Your task to perform on an android device: Go to eBay Image 0: 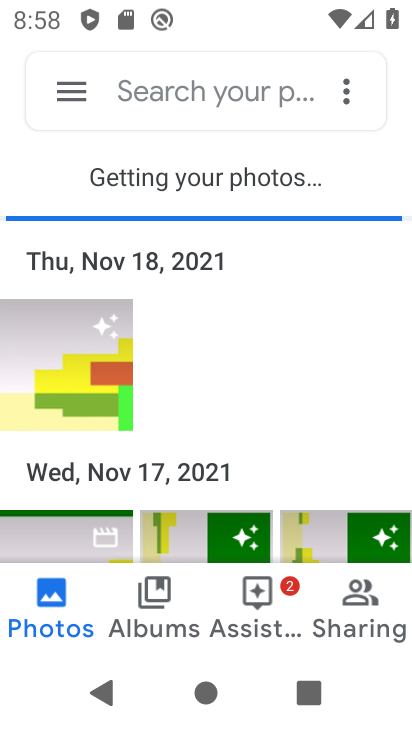
Step 0: press home button
Your task to perform on an android device: Go to eBay Image 1: 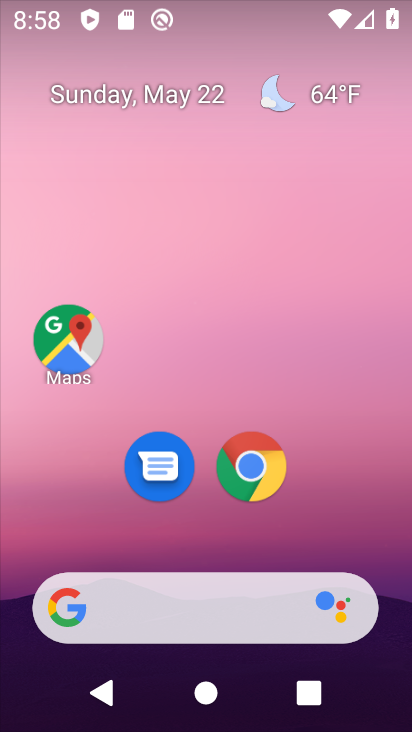
Step 1: click (277, 463)
Your task to perform on an android device: Go to eBay Image 2: 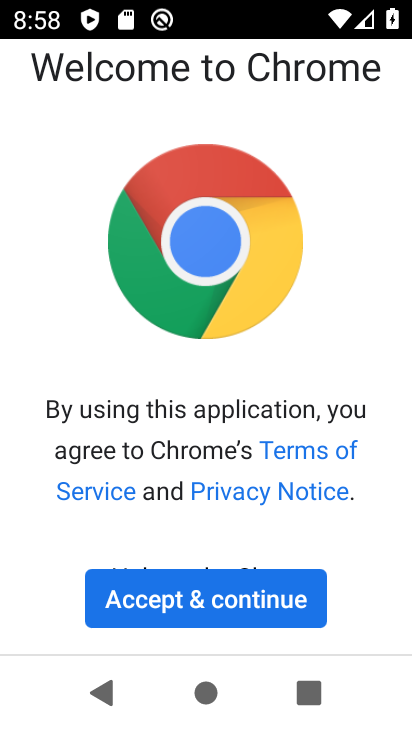
Step 2: click (281, 595)
Your task to perform on an android device: Go to eBay Image 3: 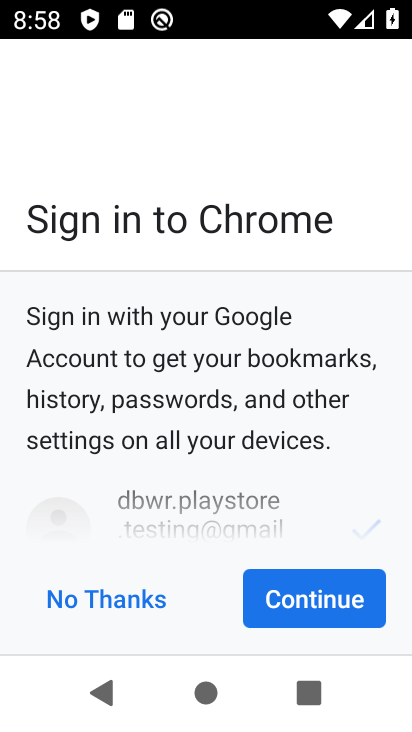
Step 3: click (342, 579)
Your task to perform on an android device: Go to eBay Image 4: 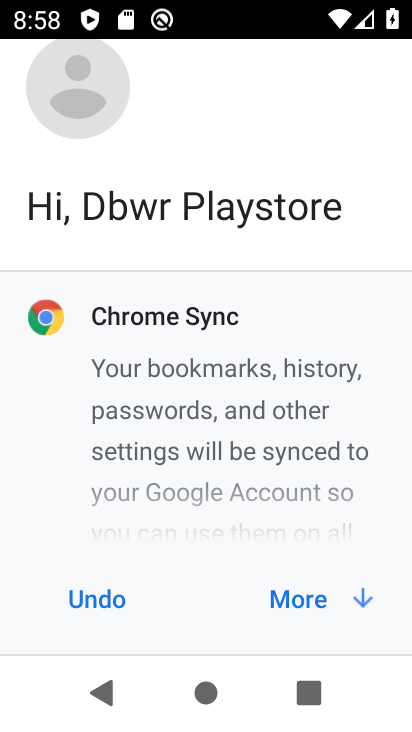
Step 4: click (330, 598)
Your task to perform on an android device: Go to eBay Image 5: 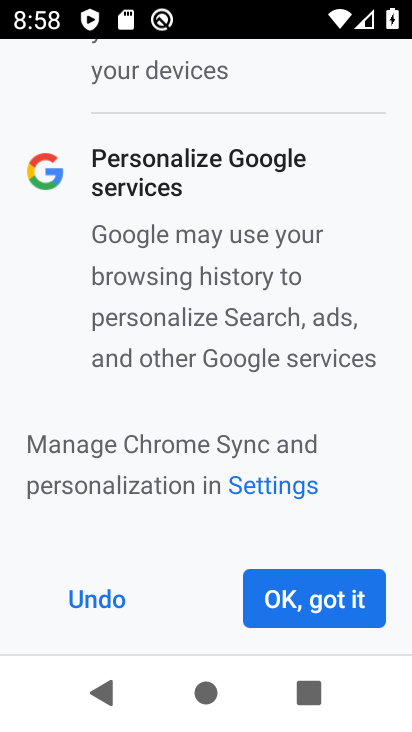
Step 5: click (330, 598)
Your task to perform on an android device: Go to eBay Image 6: 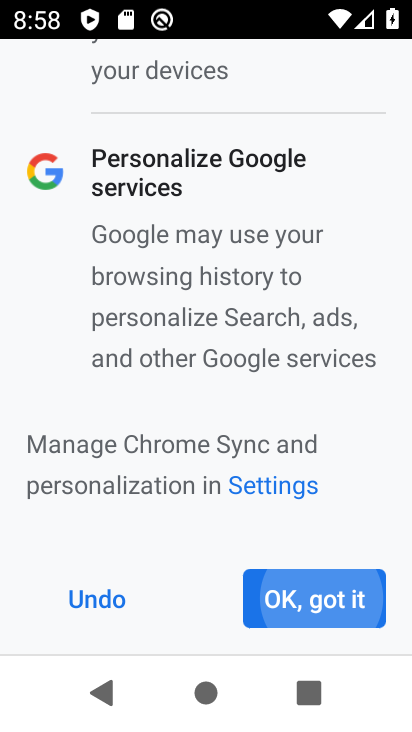
Step 6: click (330, 598)
Your task to perform on an android device: Go to eBay Image 7: 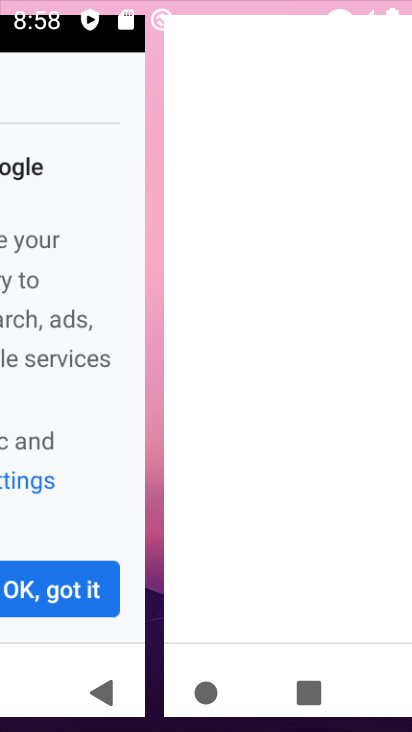
Step 7: click (330, 598)
Your task to perform on an android device: Go to eBay Image 8: 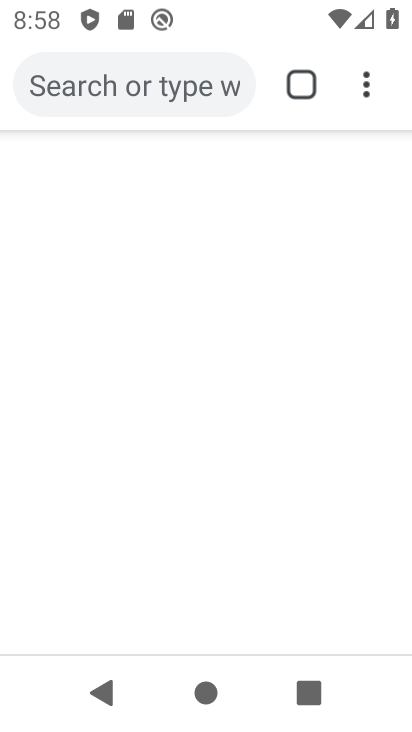
Step 8: click (330, 598)
Your task to perform on an android device: Go to eBay Image 9: 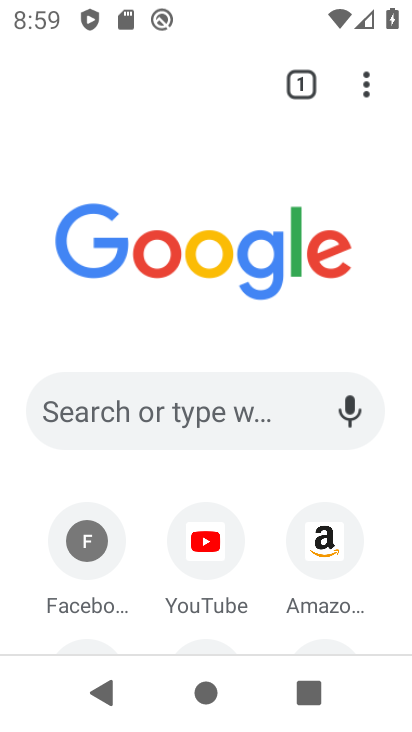
Step 9: click (194, 415)
Your task to perform on an android device: Go to eBay Image 10: 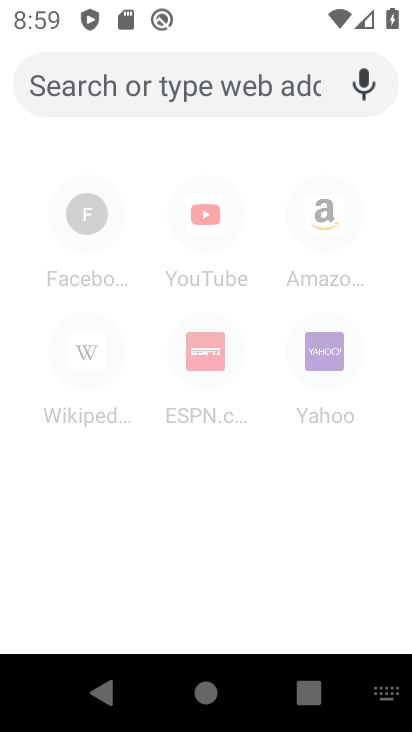
Step 10: type " eBay"
Your task to perform on an android device: Go to eBay Image 11: 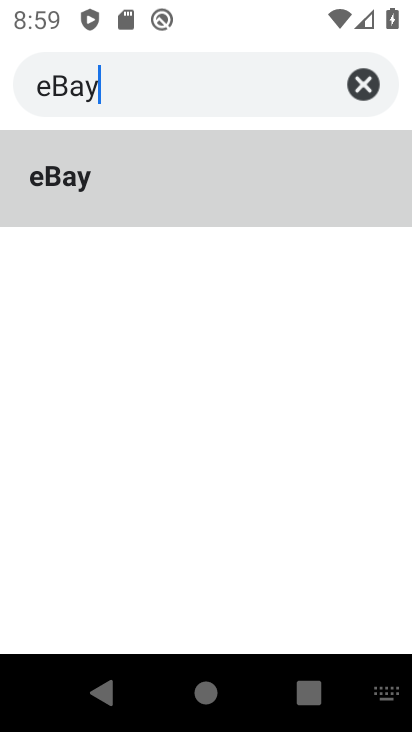
Step 11: click (56, 179)
Your task to perform on an android device: Go to eBay Image 12: 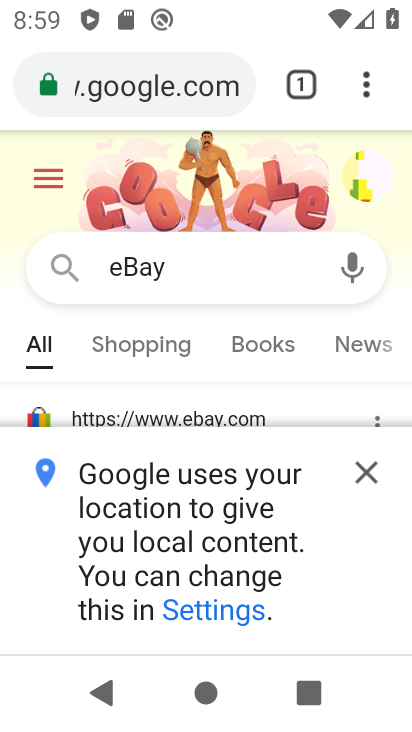
Step 12: click (368, 473)
Your task to perform on an android device: Go to eBay Image 13: 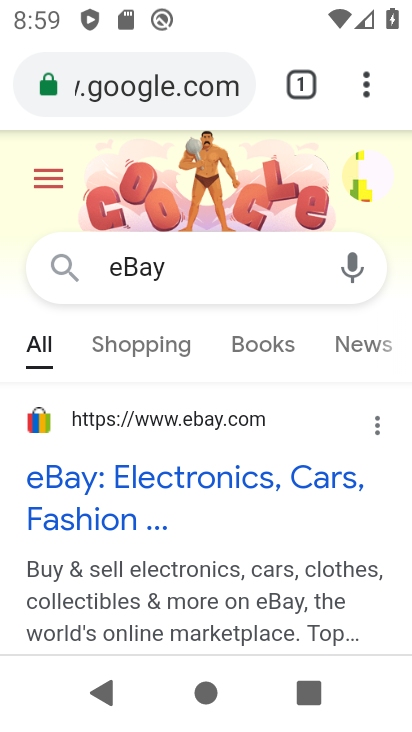
Step 13: click (77, 475)
Your task to perform on an android device: Go to eBay Image 14: 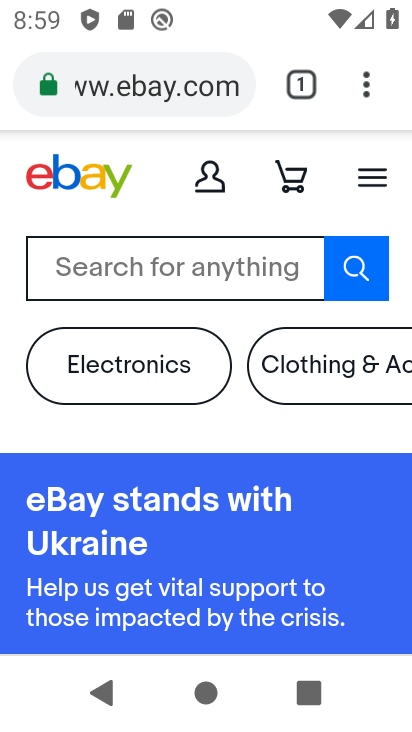
Step 14: task complete